Your task to perform on an android device: View the shopping cart on costco. Add razer deathadder to the cart on costco, then select checkout. Image 0: 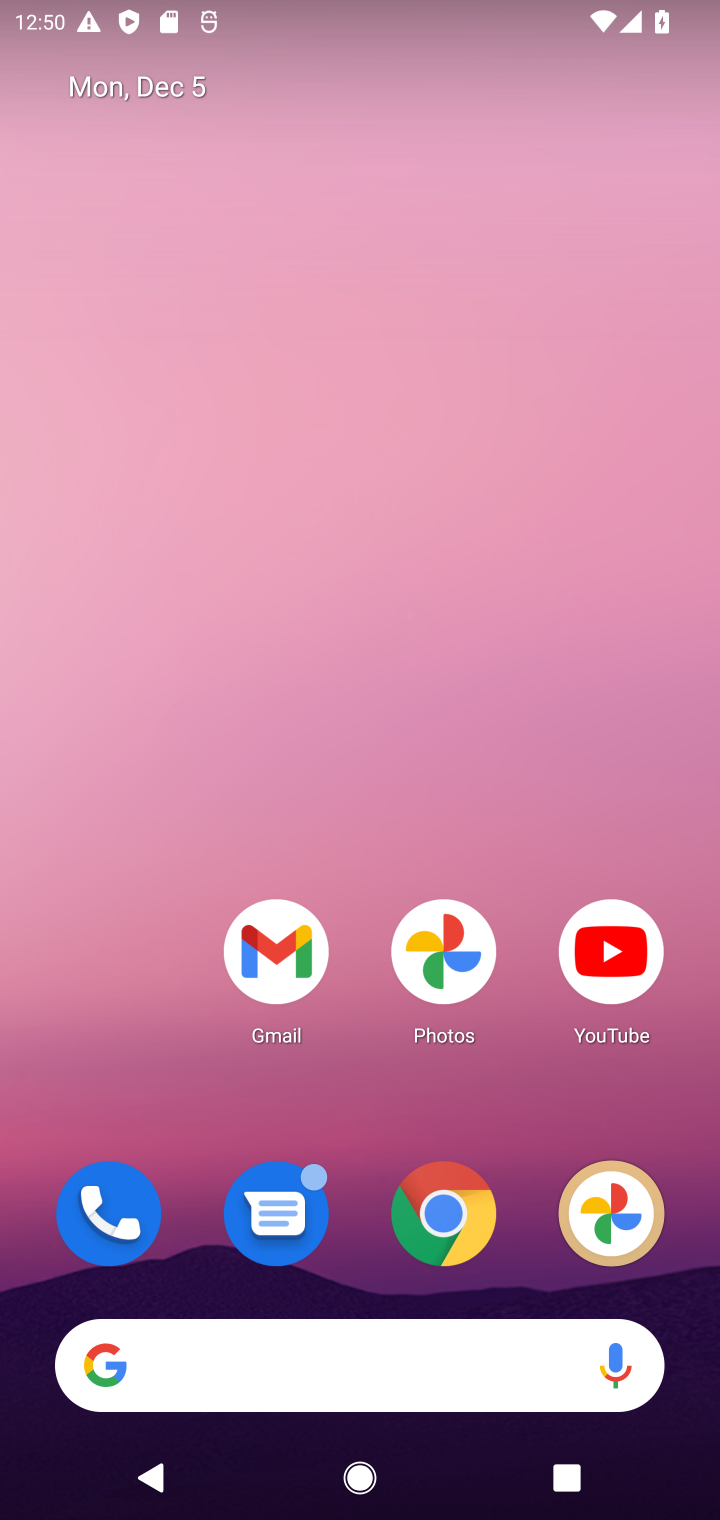
Step 0: click (455, 1215)
Your task to perform on an android device: View the shopping cart on costco. Add razer deathadder to the cart on costco, then select checkout. Image 1: 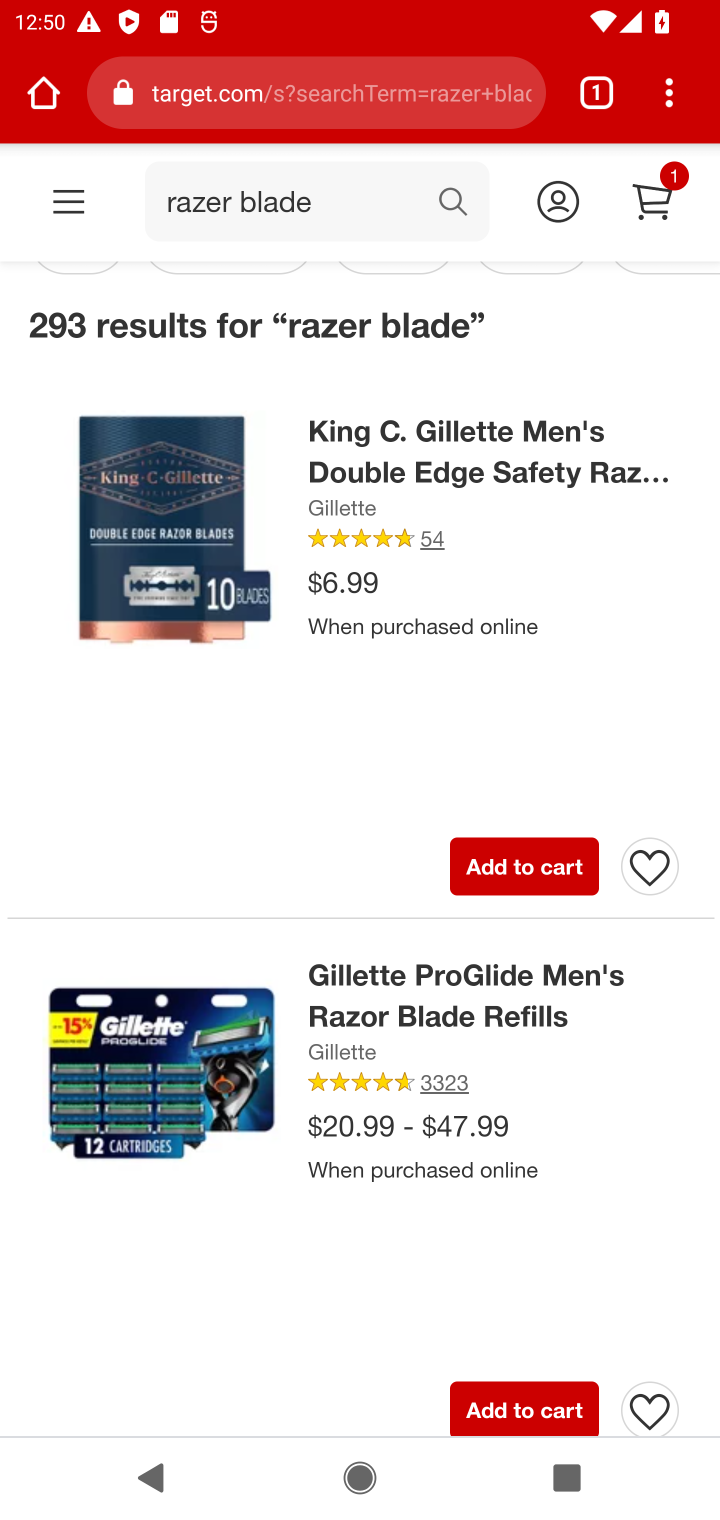
Step 1: click (271, 98)
Your task to perform on an android device: View the shopping cart on costco. Add razer deathadder to the cart on costco, then select checkout. Image 2: 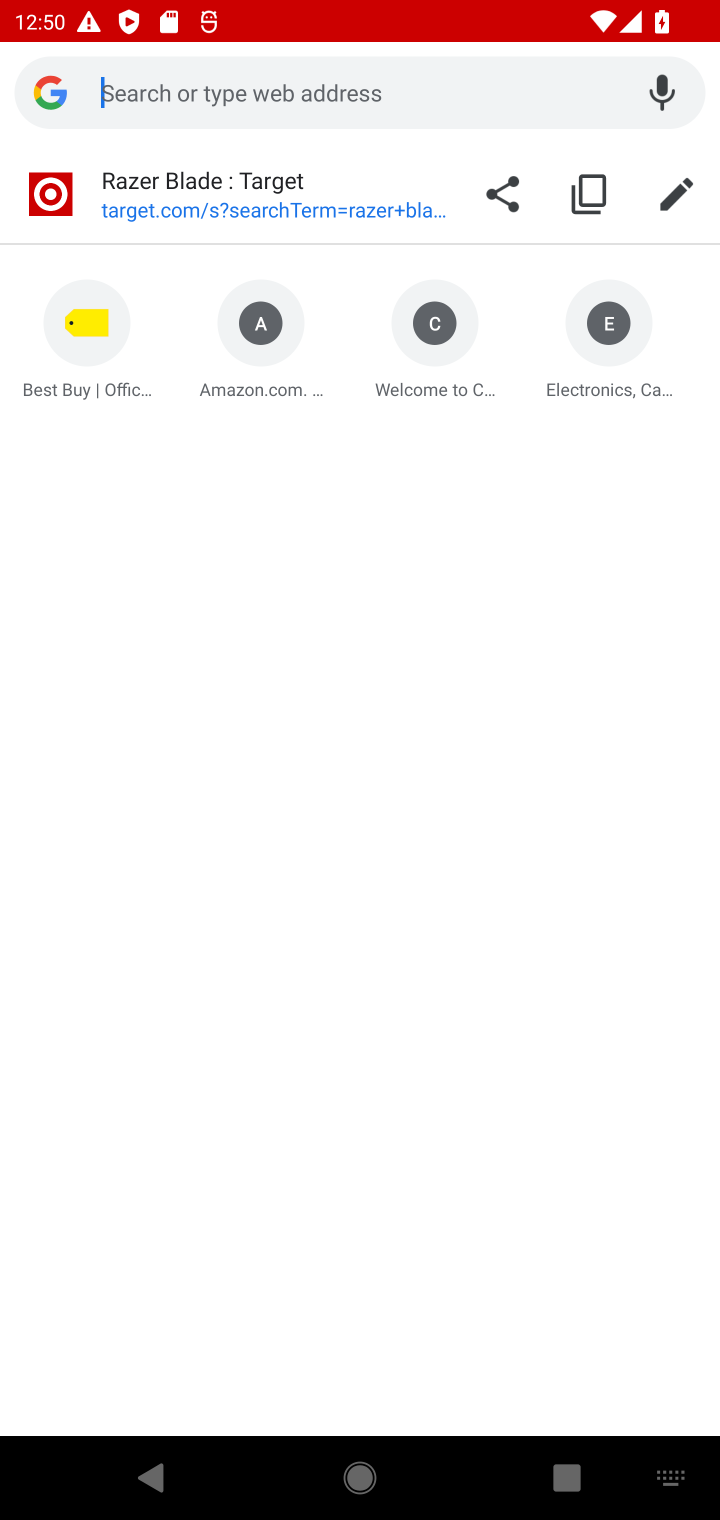
Step 2: type "costco.com"
Your task to perform on an android device: View the shopping cart on costco. Add razer deathadder to the cart on costco, then select checkout. Image 3: 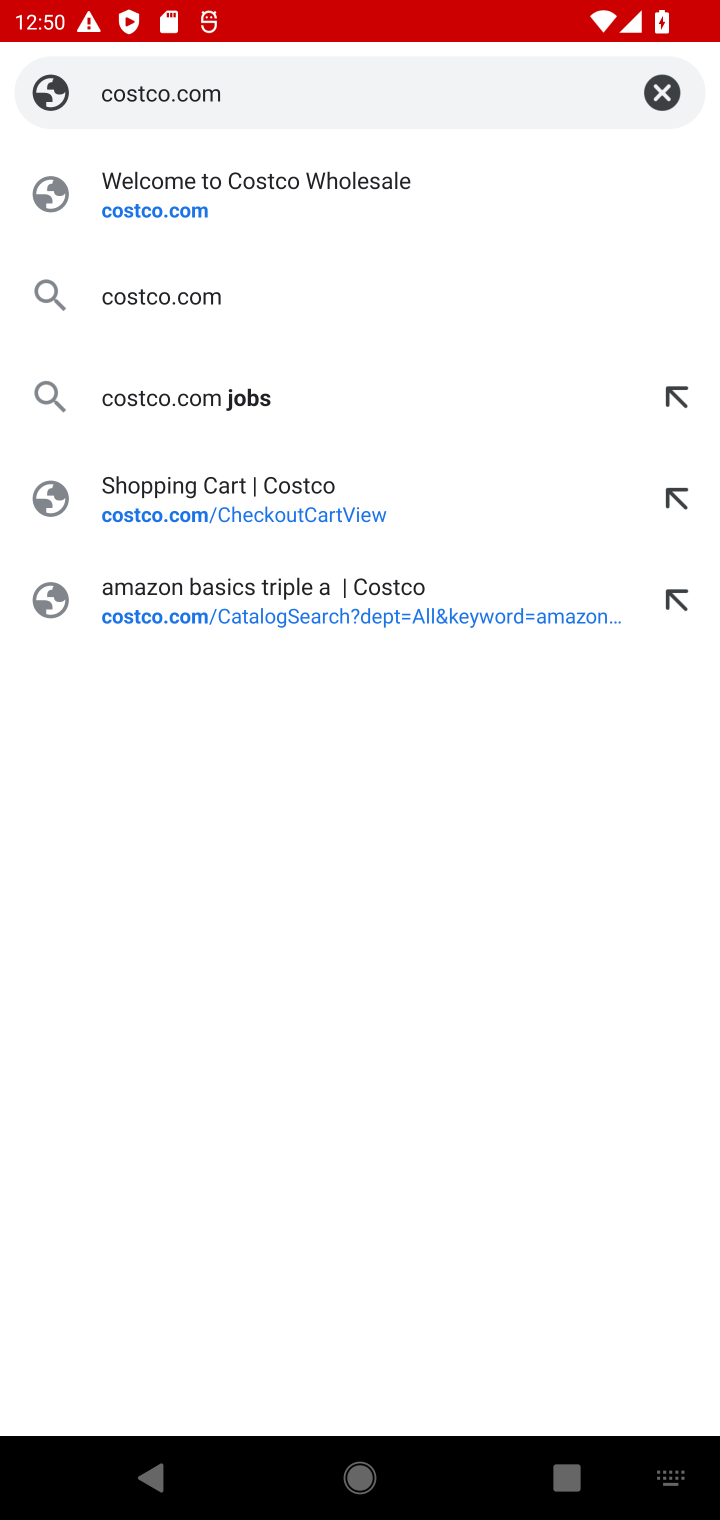
Step 3: click (143, 192)
Your task to perform on an android device: View the shopping cart on costco. Add razer deathadder to the cart on costco, then select checkout. Image 4: 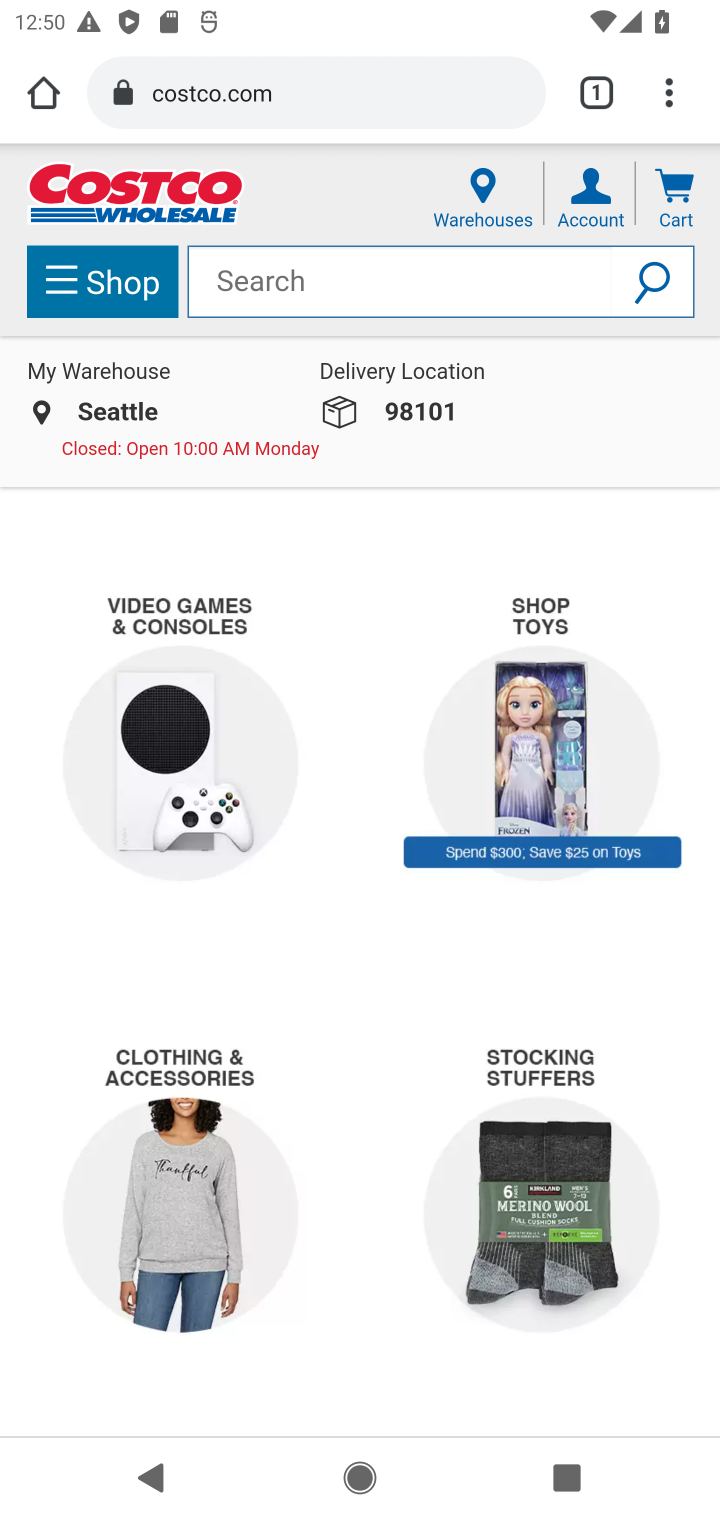
Step 4: click (684, 214)
Your task to perform on an android device: View the shopping cart on costco. Add razer deathadder to the cart on costco, then select checkout. Image 5: 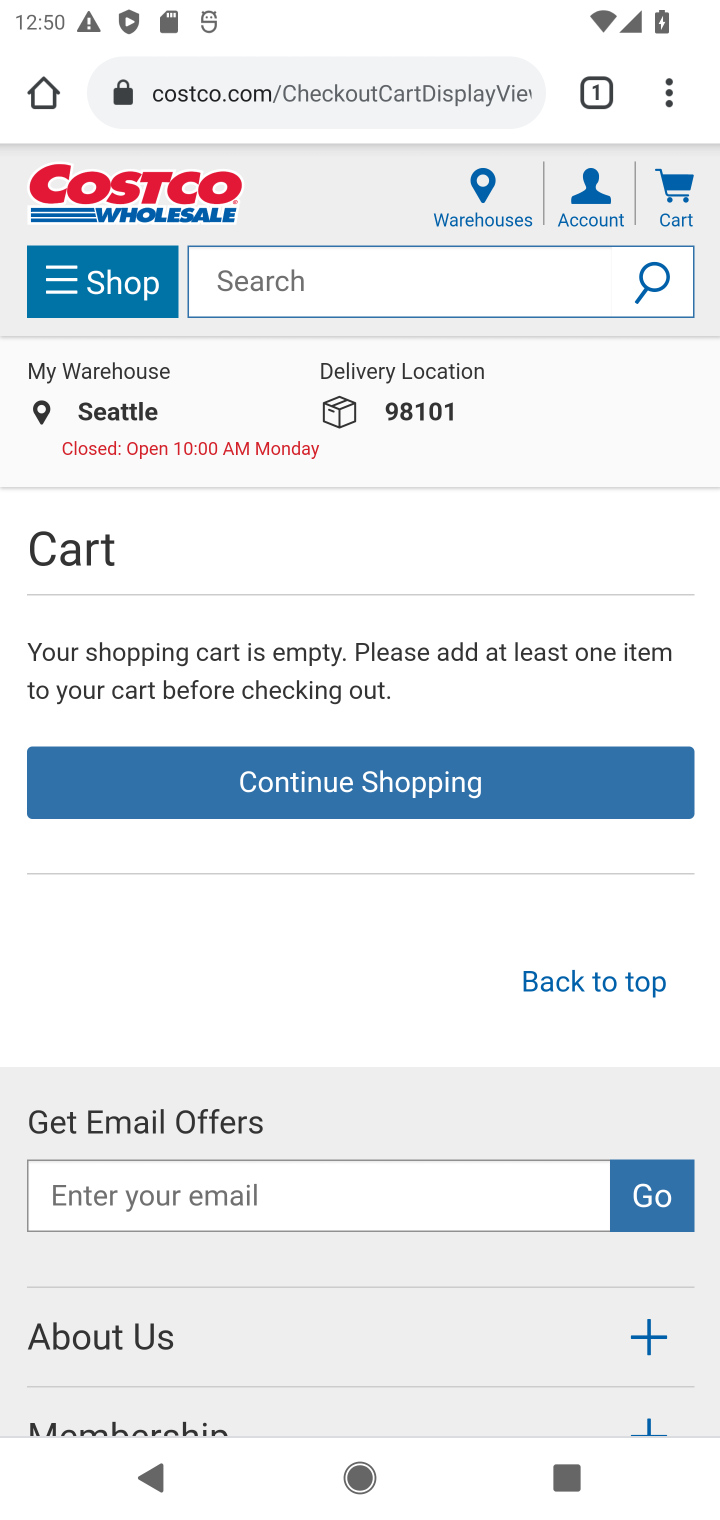
Step 5: click (335, 278)
Your task to perform on an android device: View the shopping cart on costco. Add razer deathadder to the cart on costco, then select checkout. Image 6: 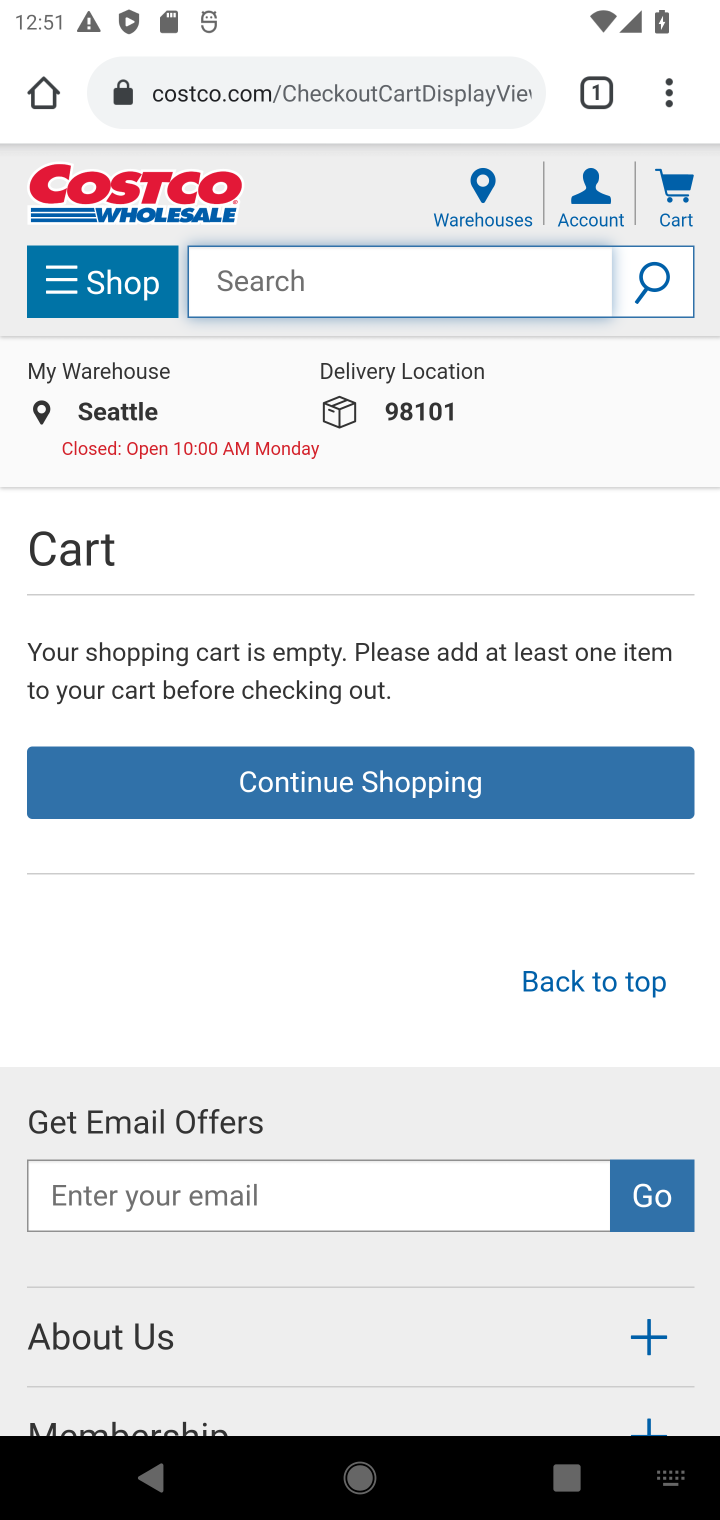
Step 6: type "razer deathadder"
Your task to perform on an android device: View the shopping cart on costco. Add razer deathadder to the cart on costco, then select checkout. Image 7: 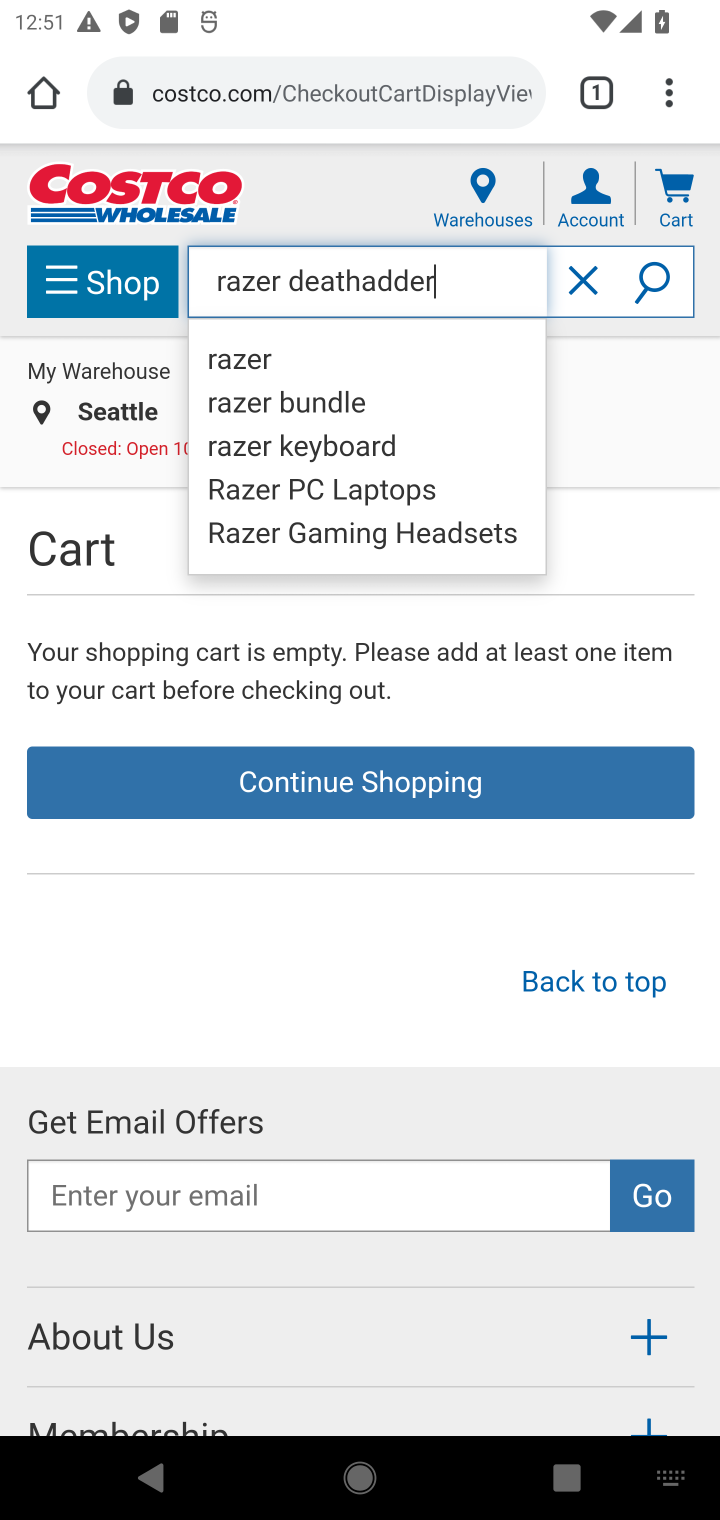
Step 7: click (649, 285)
Your task to perform on an android device: View the shopping cart on costco. Add razer deathadder to the cart on costco, then select checkout. Image 8: 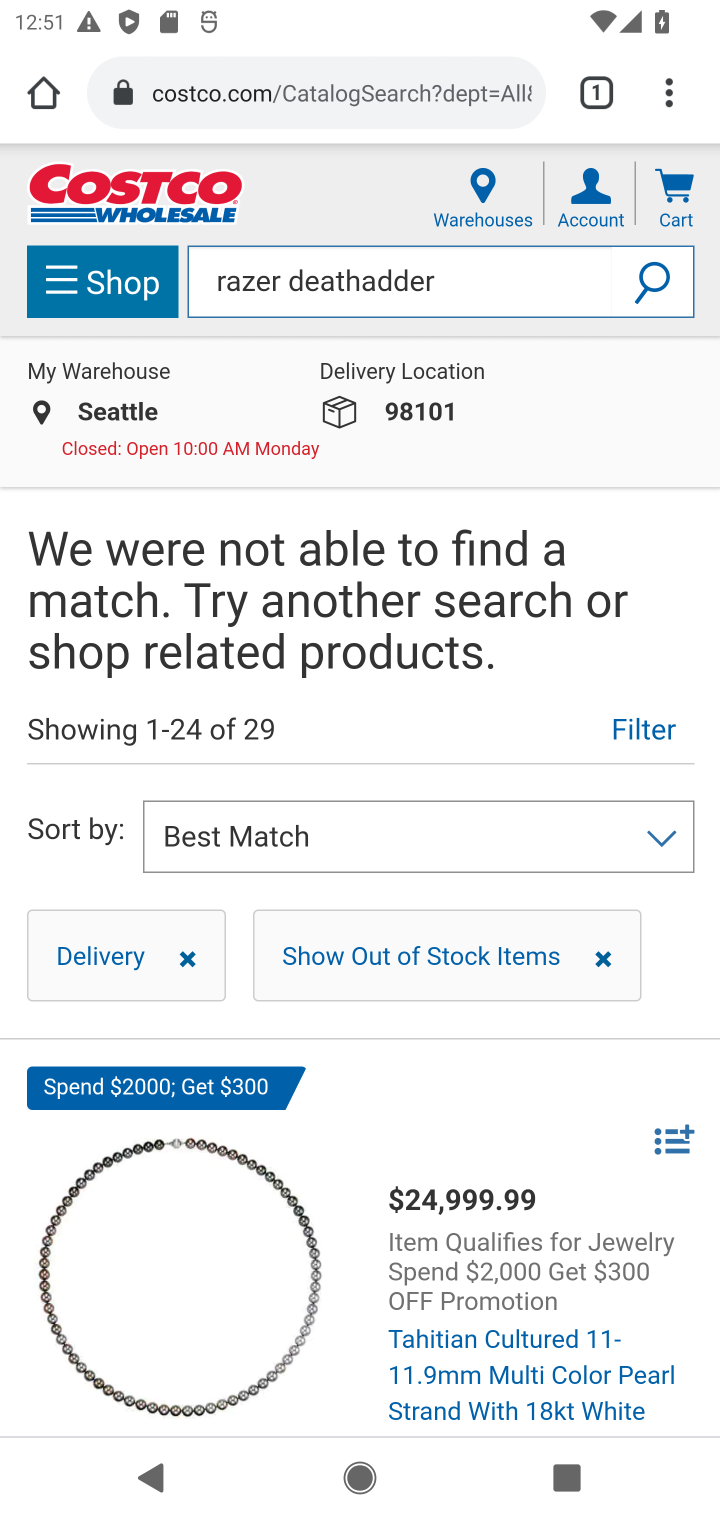
Step 8: task complete